Your task to perform on an android device: turn off javascript in the chrome app Image 0: 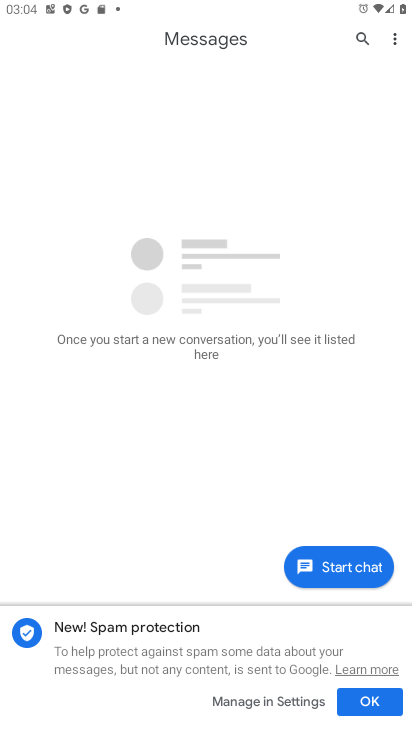
Step 0: press home button
Your task to perform on an android device: turn off javascript in the chrome app Image 1: 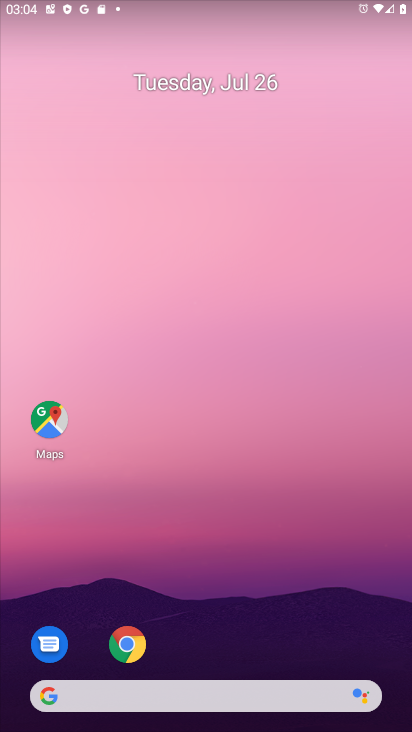
Step 1: drag from (188, 669) to (232, 101)
Your task to perform on an android device: turn off javascript in the chrome app Image 2: 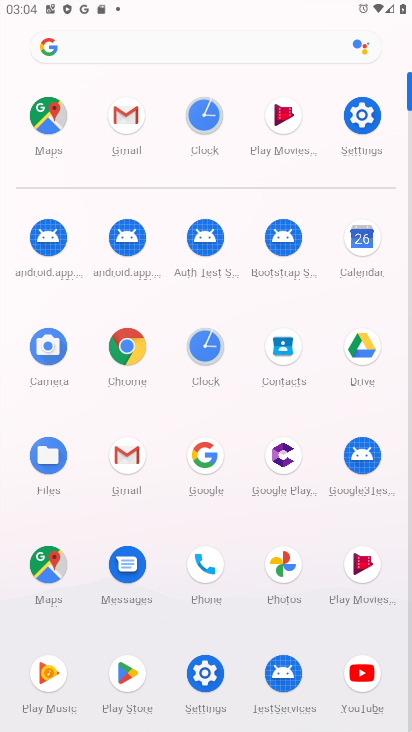
Step 2: click (127, 353)
Your task to perform on an android device: turn off javascript in the chrome app Image 3: 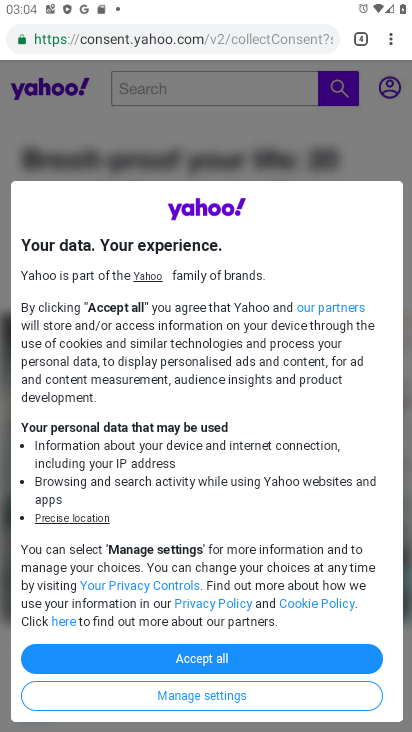
Step 3: click (388, 43)
Your task to perform on an android device: turn off javascript in the chrome app Image 4: 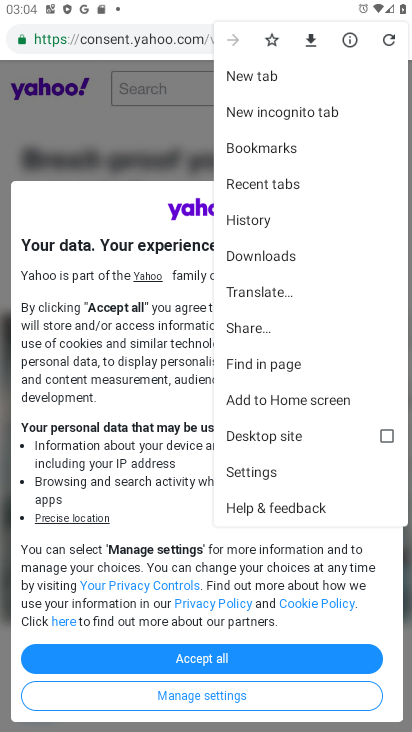
Step 4: click (259, 466)
Your task to perform on an android device: turn off javascript in the chrome app Image 5: 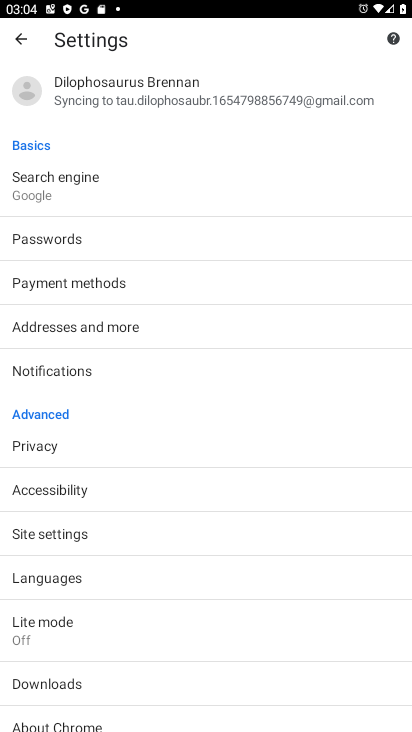
Step 5: click (61, 537)
Your task to perform on an android device: turn off javascript in the chrome app Image 6: 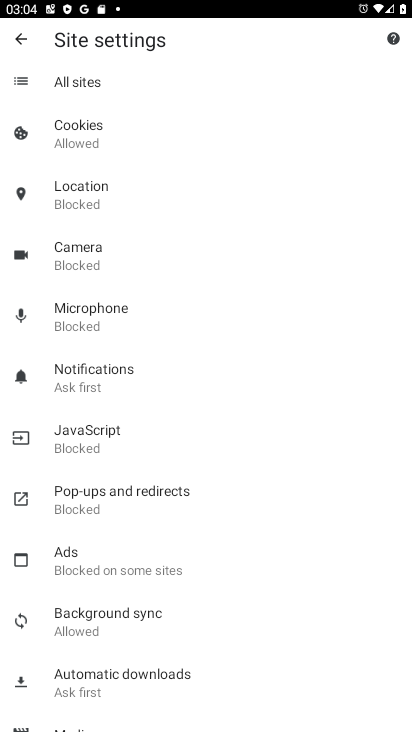
Step 6: drag from (168, 609) to (143, 214)
Your task to perform on an android device: turn off javascript in the chrome app Image 7: 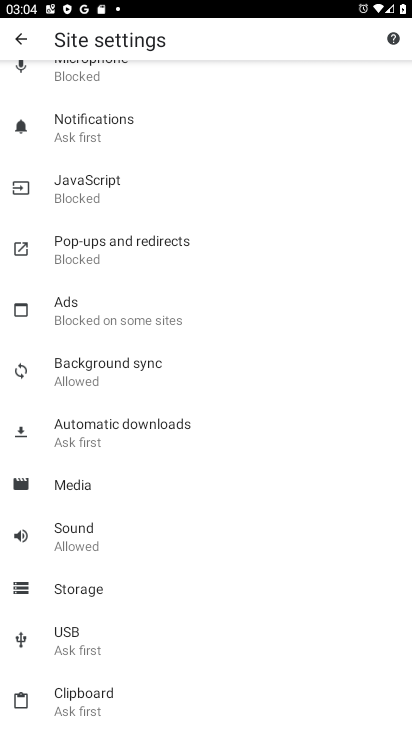
Step 7: drag from (171, 514) to (126, 214)
Your task to perform on an android device: turn off javascript in the chrome app Image 8: 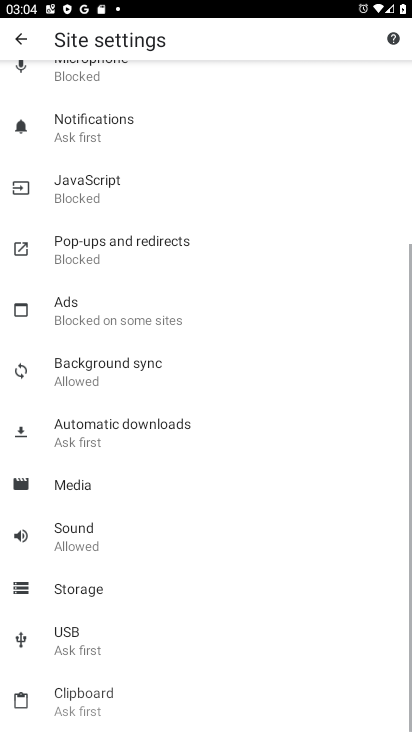
Step 8: drag from (126, 212) to (117, 576)
Your task to perform on an android device: turn off javascript in the chrome app Image 9: 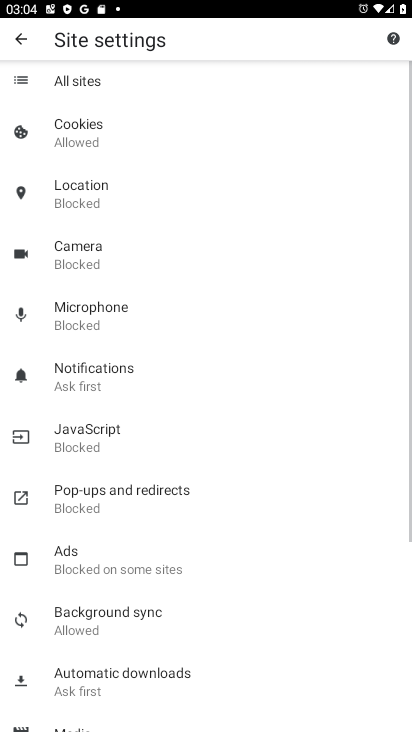
Step 9: click (94, 439)
Your task to perform on an android device: turn off javascript in the chrome app Image 10: 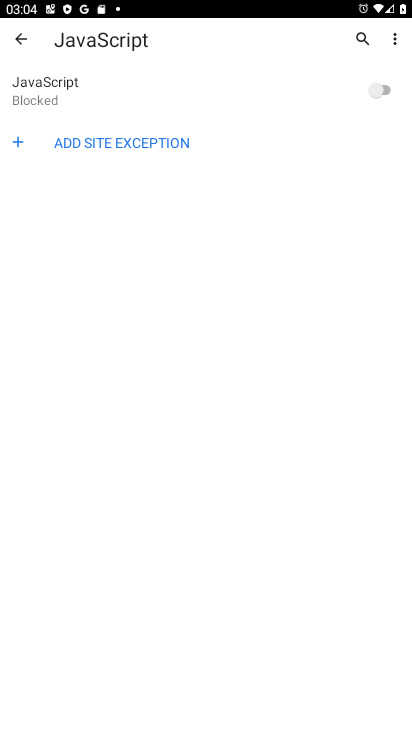
Step 10: task complete